Your task to perform on an android device: move an email to a new category in the gmail app Image 0: 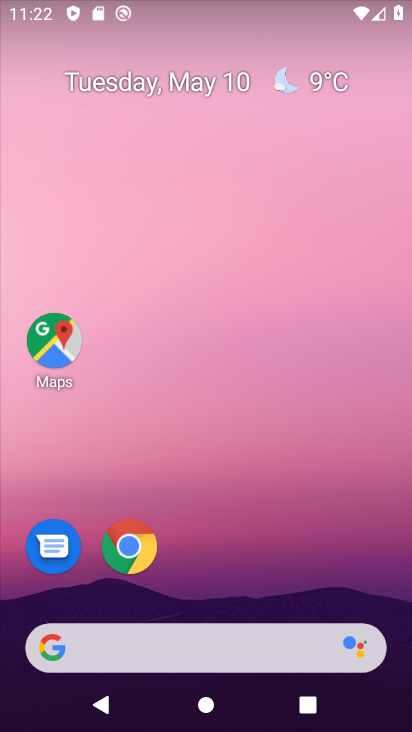
Step 0: drag from (200, 591) to (206, 182)
Your task to perform on an android device: move an email to a new category in the gmail app Image 1: 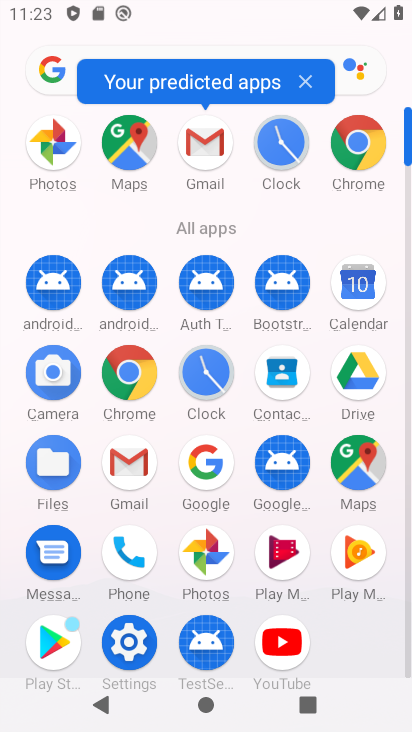
Step 1: click (198, 145)
Your task to perform on an android device: move an email to a new category in the gmail app Image 2: 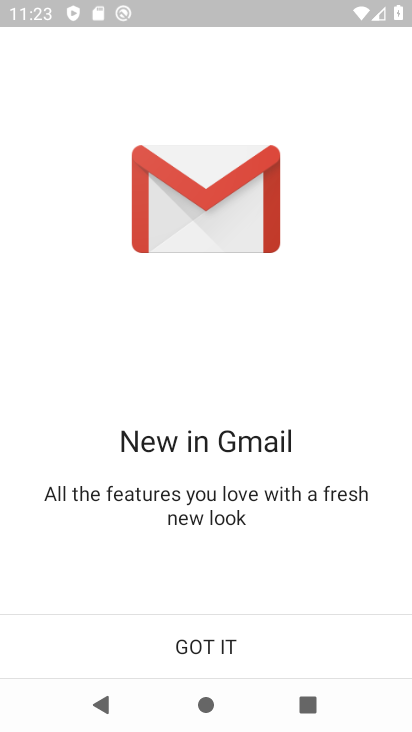
Step 2: click (164, 625)
Your task to perform on an android device: move an email to a new category in the gmail app Image 3: 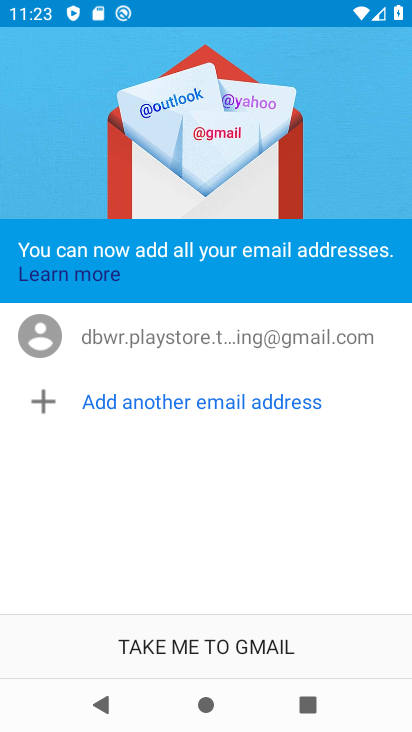
Step 3: click (181, 642)
Your task to perform on an android device: move an email to a new category in the gmail app Image 4: 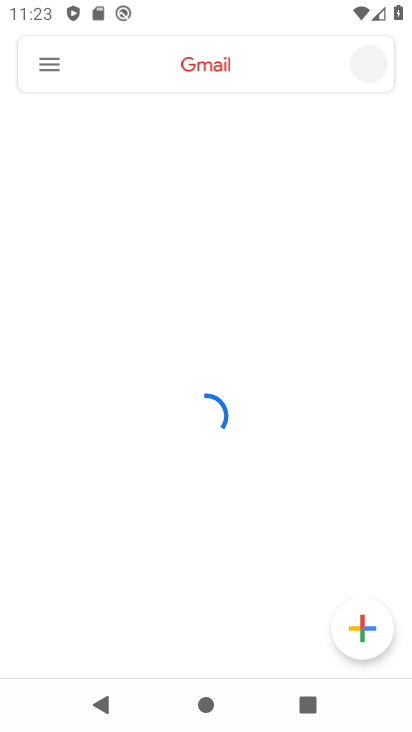
Step 4: click (55, 68)
Your task to perform on an android device: move an email to a new category in the gmail app Image 5: 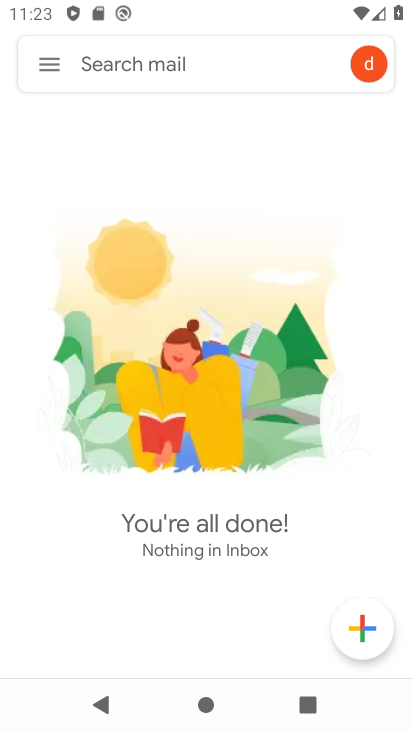
Step 5: click (39, 70)
Your task to perform on an android device: move an email to a new category in the gmail app Image 6: 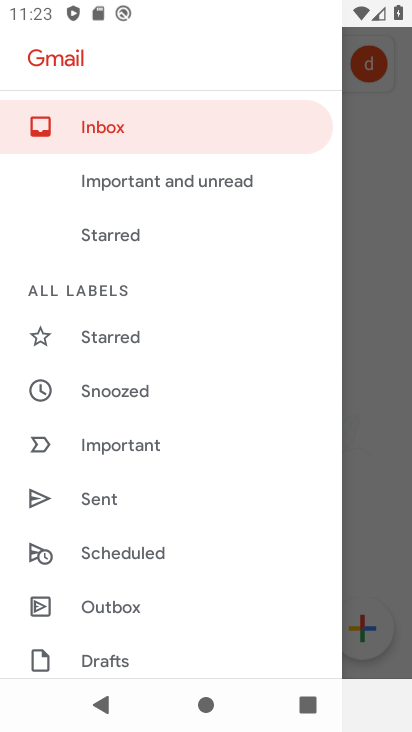
Step 6: drag from (149, 602) to (184, 303)
Your task to perform on an android device: move an email to a new category in the gmail app Image 7: 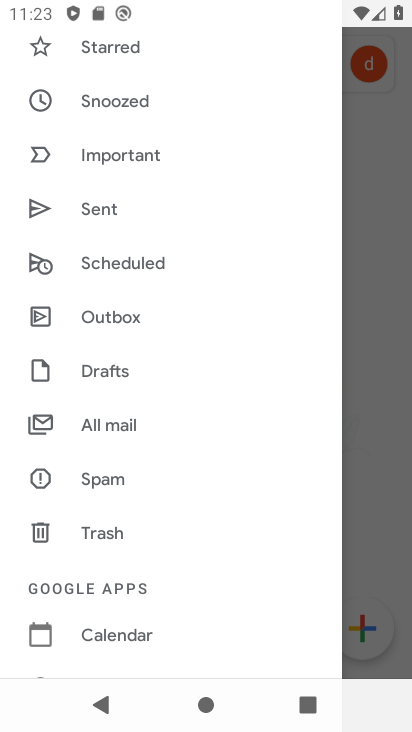
Step 7: click (103, 430)
Your task to perform on an android device: move an email to a new category in the gmail app Image 8: 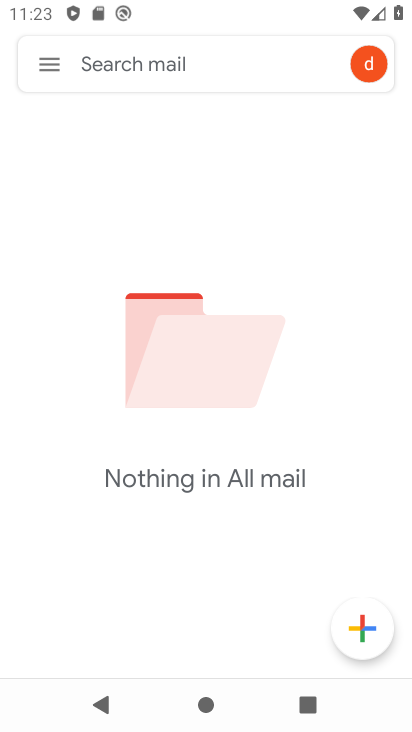
Step 8: task complete